Your task to perform on an android device: open device folders in google photos Image 0: 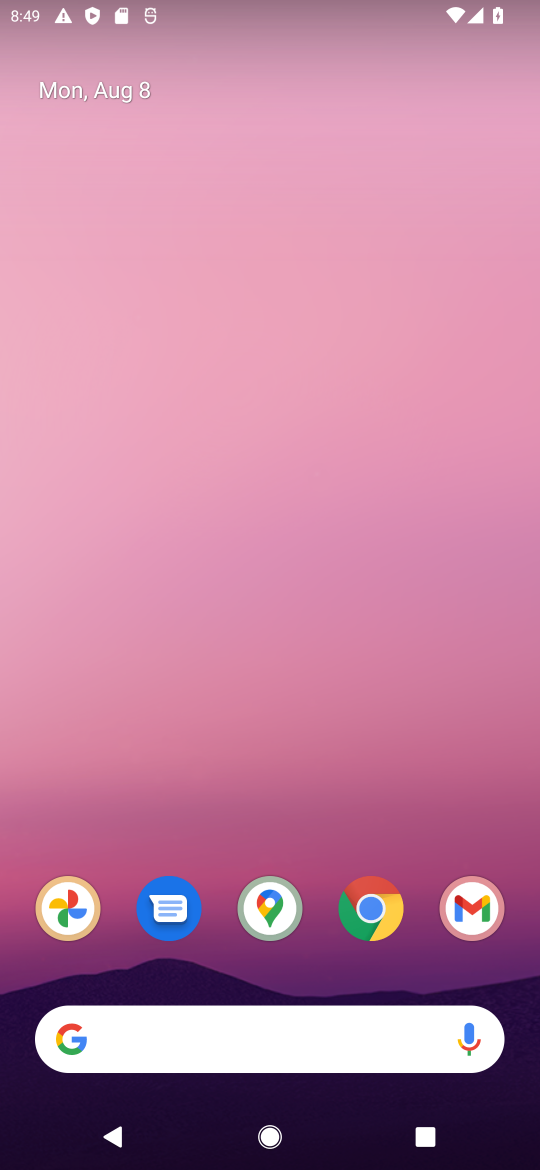
Step 0: click (45, 916)
Your task to perform on an android device: open device folders in google photos Image 1: 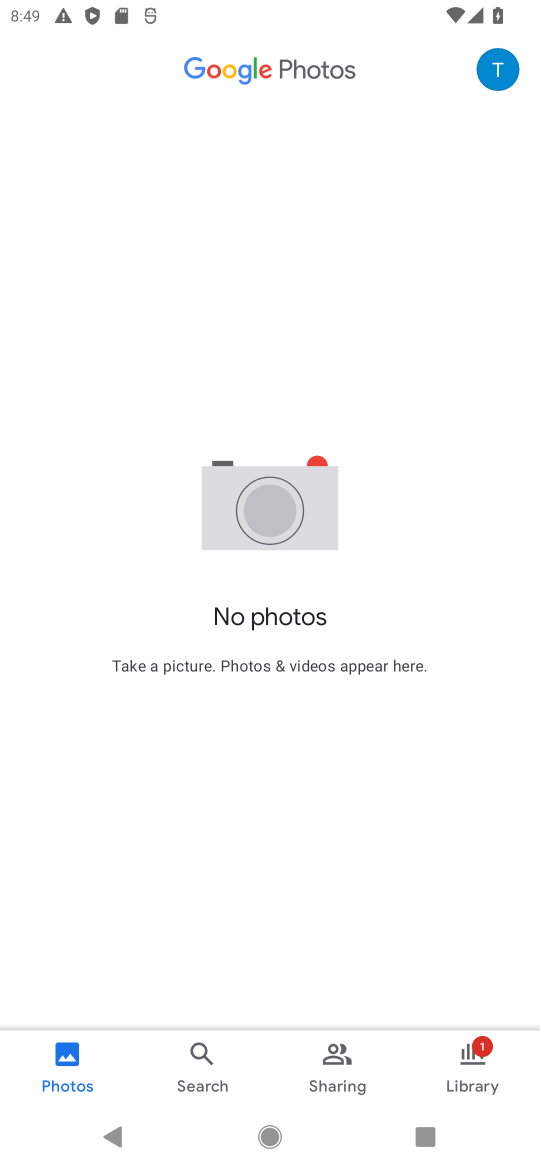
Step 1: click (485, 86)
Your task to perform on an android device: open device folders in google photos Image 2: 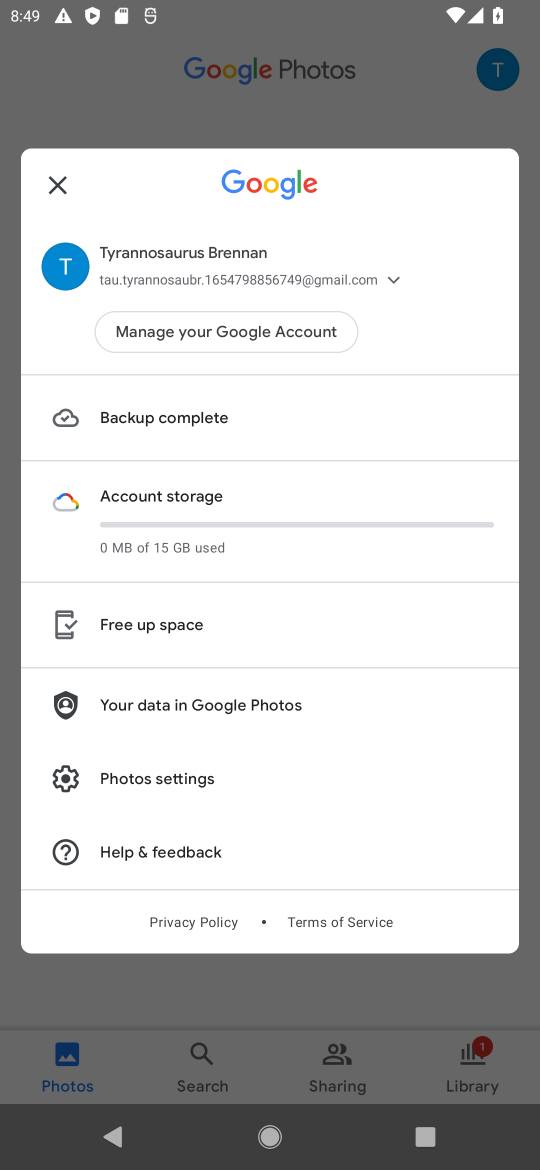
Step 2: click (142, 797)
Your task to perform on an android device: open device folders in google photos Image 3: 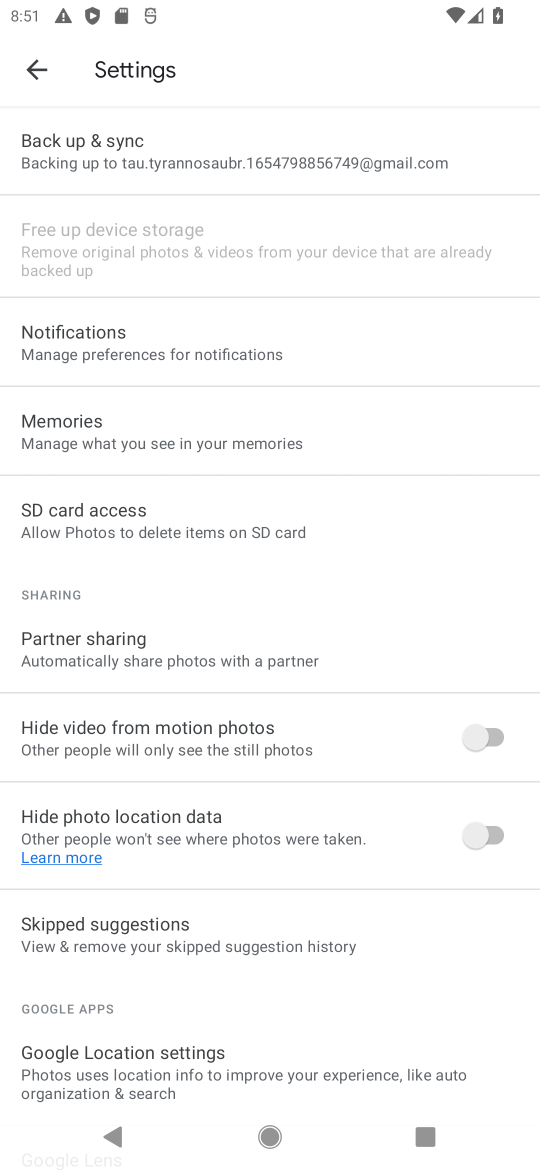
Step 3: click (42, 72)
Your task to perform on an android device: open device folders in google photos Image 4: 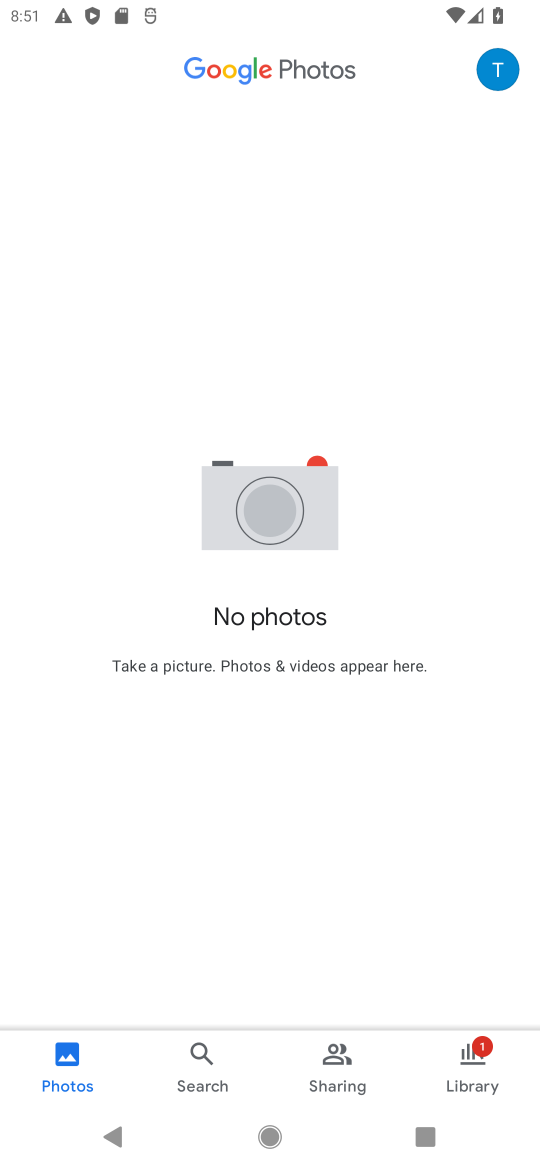
Step 4: click (508, 78)
Your task to perform on an android device: open device folders in google photos Image 5: 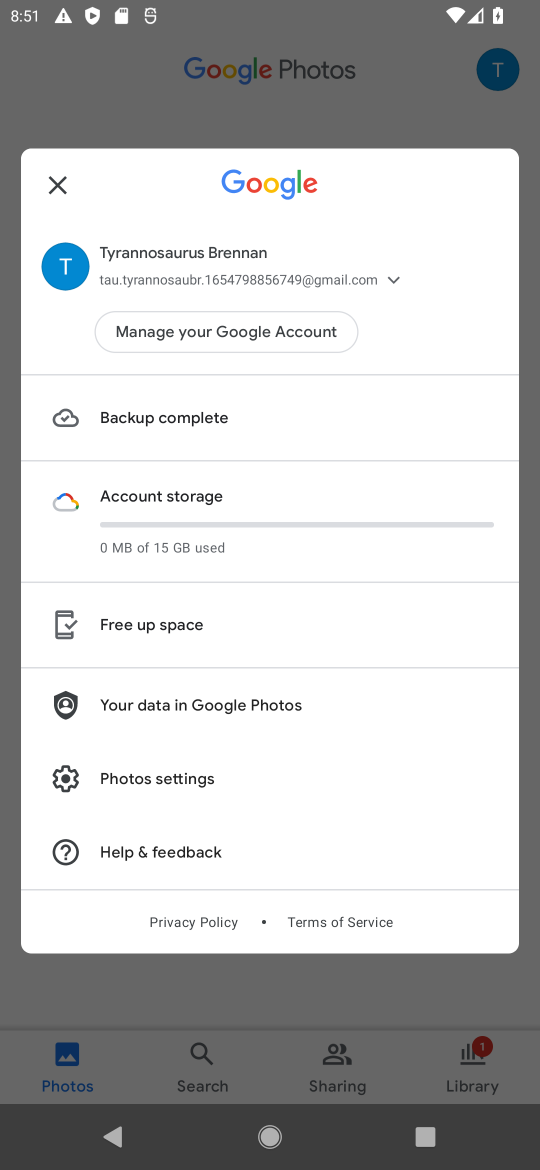
Step 5: click (134, 797)
Your task to perform on an android device: open device folders in google photos Image 6: 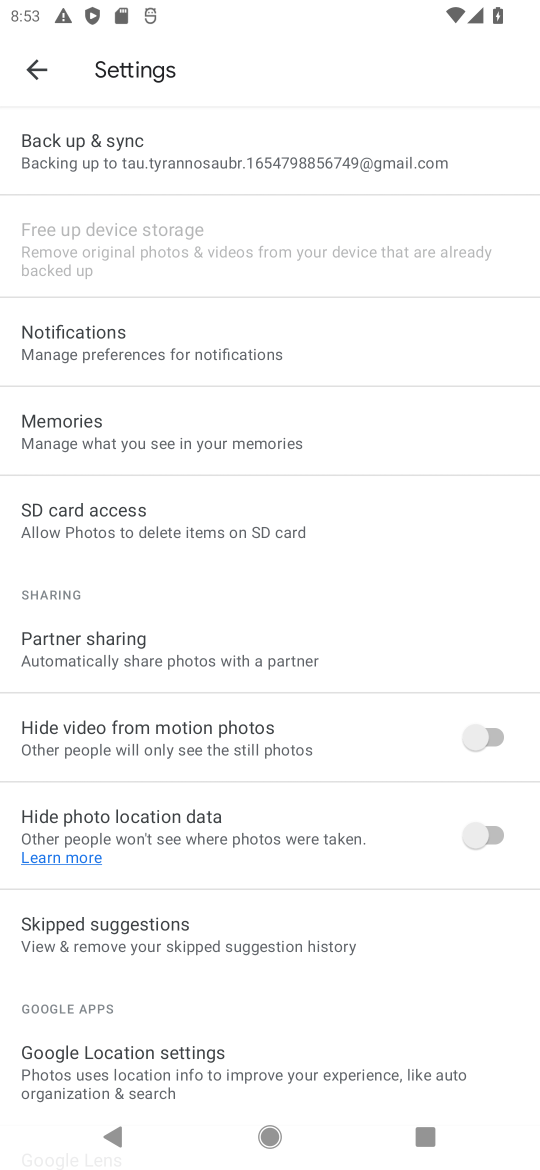
Step 6: task complete